Your task to perform on an android device: Search for Italian restaurants on Maps Image 0: 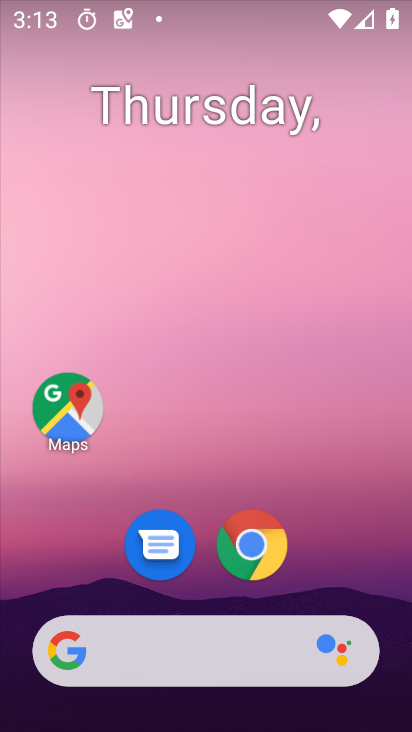
Step 0: drag from (237, 719) to (236, 166)
Your task to perform on an android device: Search for Italian restaurants on Maps Image 1: 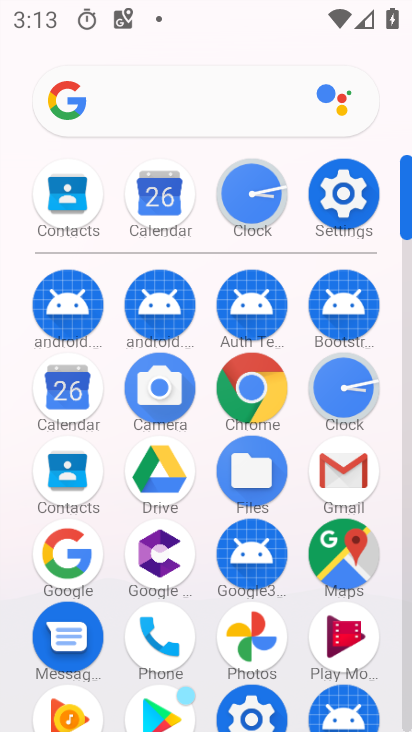
Step 1: click (348, 561)
Your task to perform on an android device: Search for Italian restaurants on Maps Image 2: 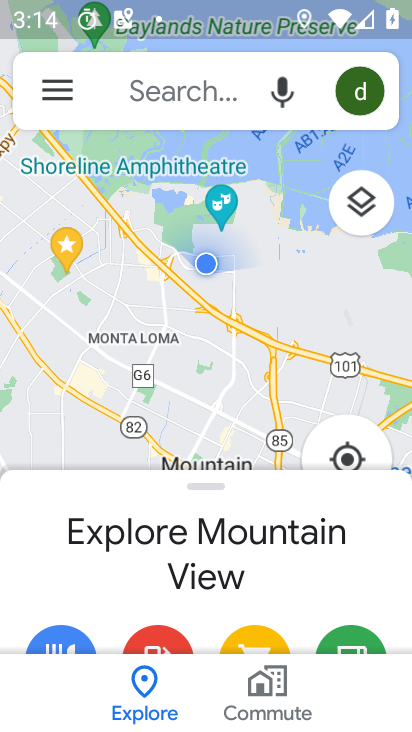
Step 2: click (182, 100)
Your task to perform on an android device: Search for Italian restaurants on Maps Image 3: 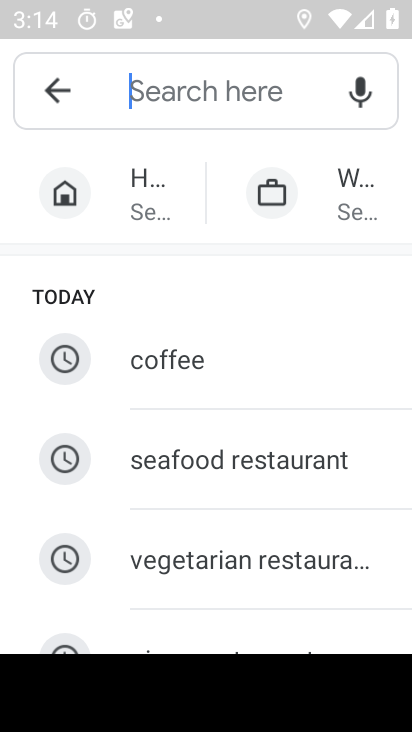
Step 3: type "italian restaurants"
Your task to perform on an android device: Search for Italian restaurants on Maps Image 4: 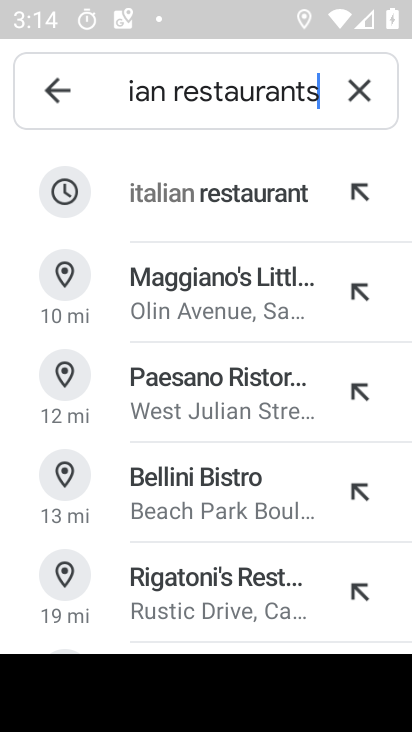
Step 4: click (172, 195)
Your task to perform on an android device: Search for Italian restaurants on Maps Image 5: 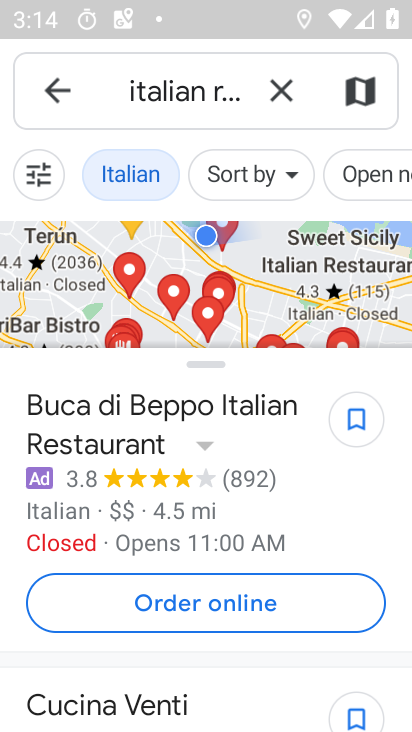
Step 5: task complete